Your task to perform on an android device: open the mobile data screen to see how much data has been used Image 0: 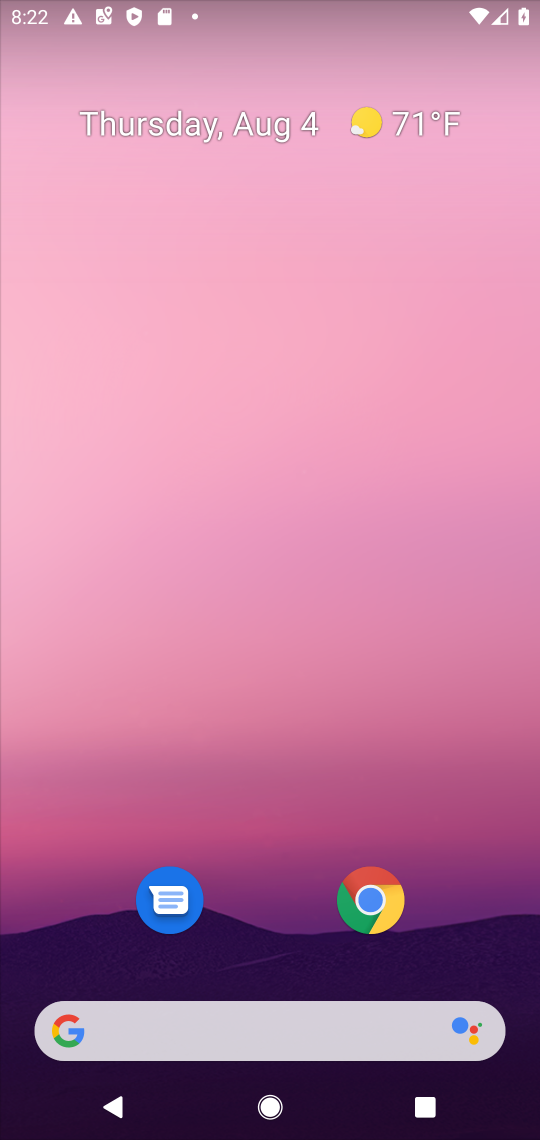
Step 0: drag from (252, 623) to (410, 103)
Your task to perform on an android device: open the mobile data screen to see how much data has been used Image 1: 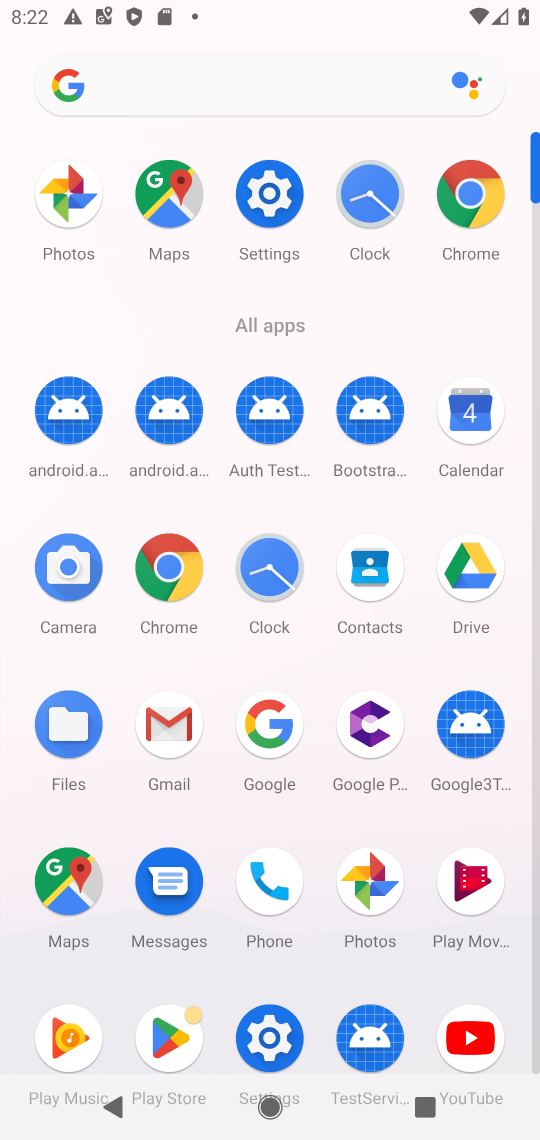
Step 1: click (264, 194)
Your task to perform on an android device: open the mobile data screen to see how much data has been used Image 2: 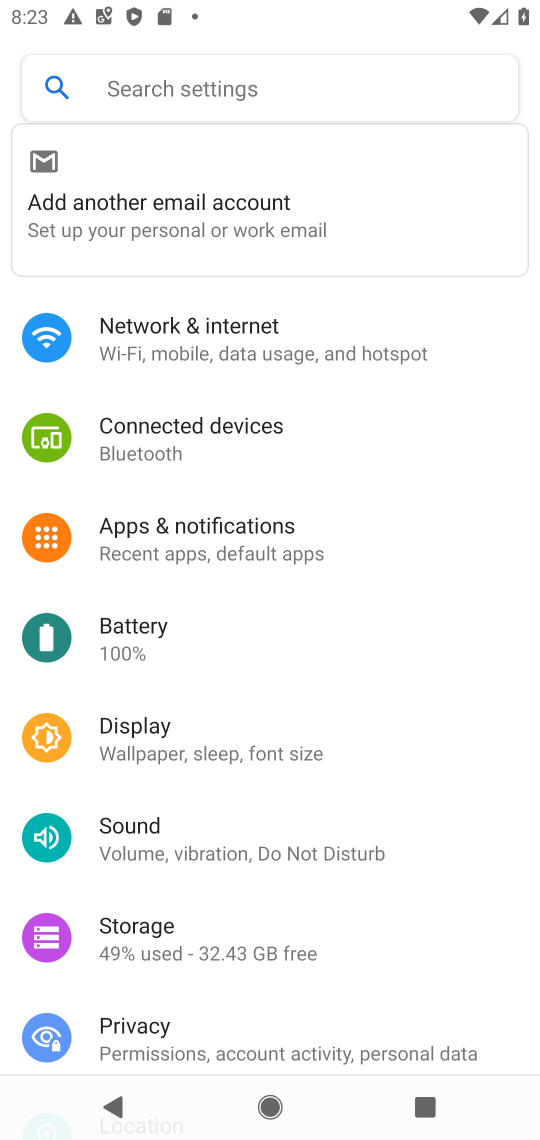
Step 2: click (217, 351)
Your task to perform on an android device: open the mobile data screen to see how much data has been used Image 3: 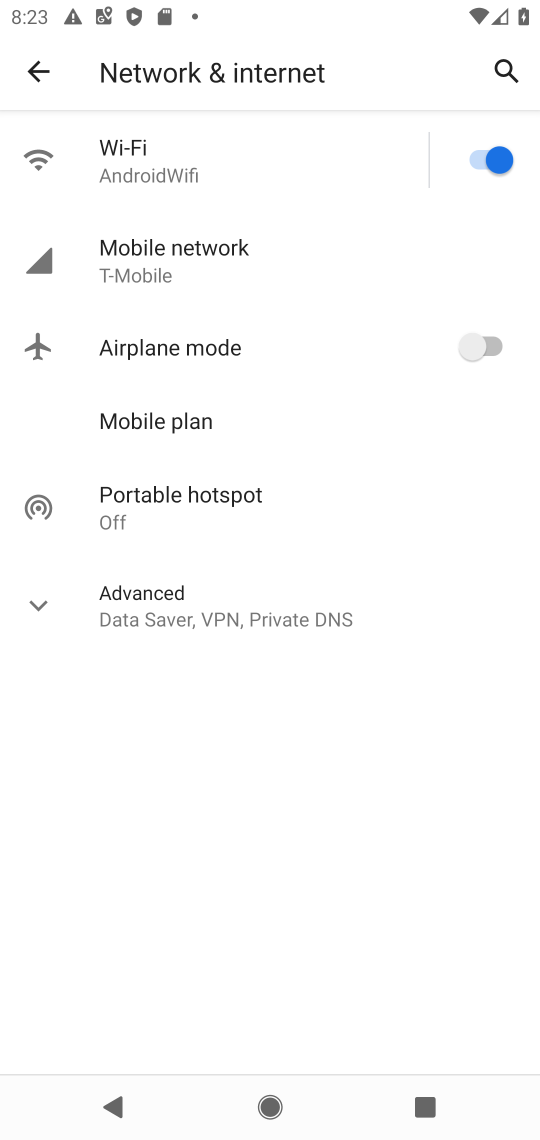
Step 3: click (194, 264)
Your task to perform on an android device: open the mobile data screen to see how much data has been used Image 4: 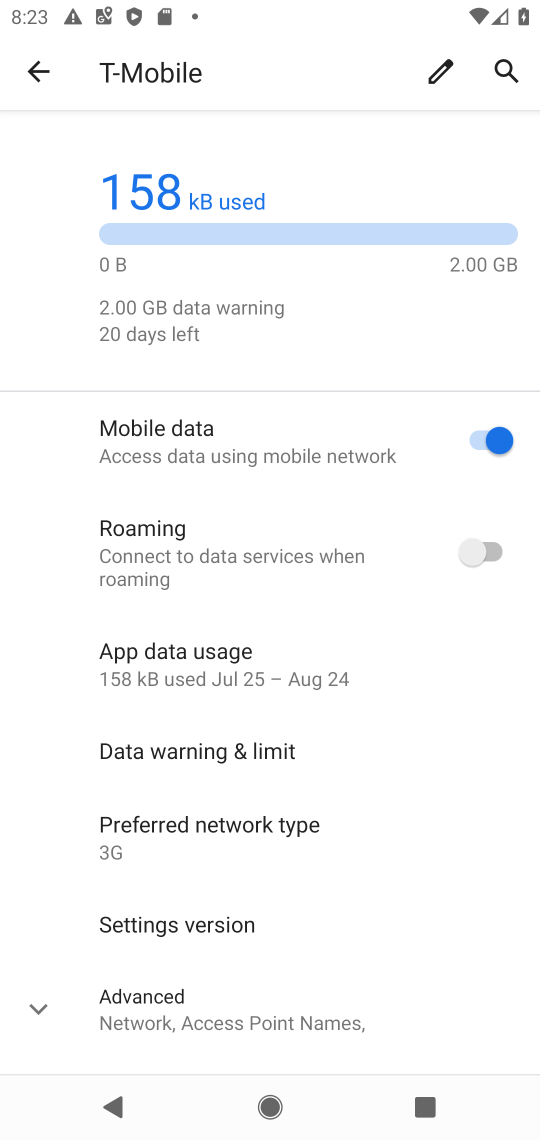
Step 4: task complete